Your task to perform on an android device: stop showing notifications on the lock screen Image 0: 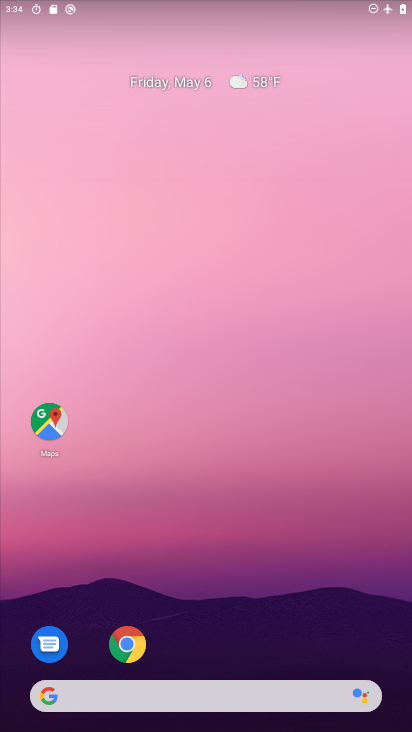
Step 0: drag from (266, 719) to (278, 67)
Your task to perform on an android device: stop showing notifications on the lock screen Image 1: 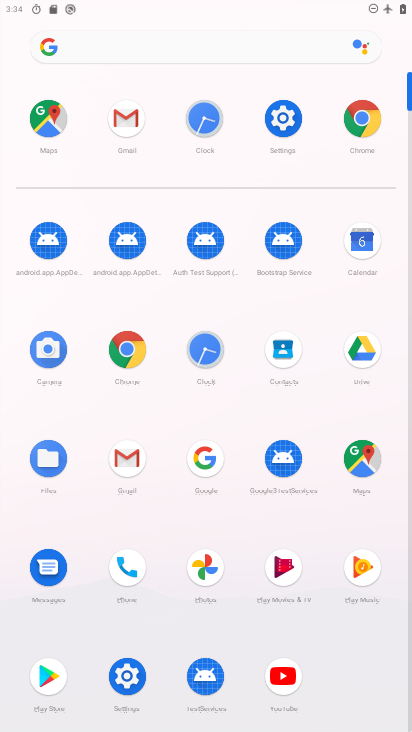
Step 1: click (289, 113)
Your task to perform on an android device: stop showing notifications on the lock screen Image 2: 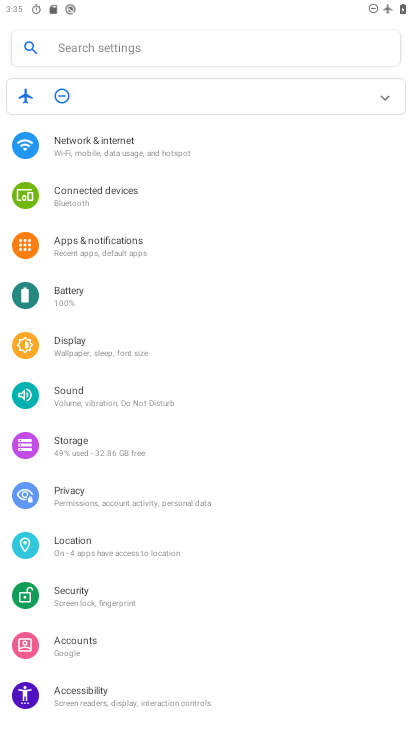
Step 2: click (97, 241)
Your task to perform on an android device: stop showing notifications on the lock screen Image 3: 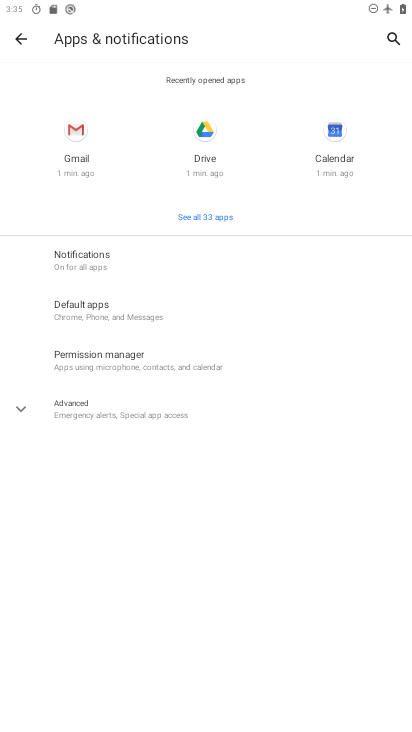
Step 3: click (84, 257)
Your task to perform on an android device: stop showing notifications on the lock screen Image 4: 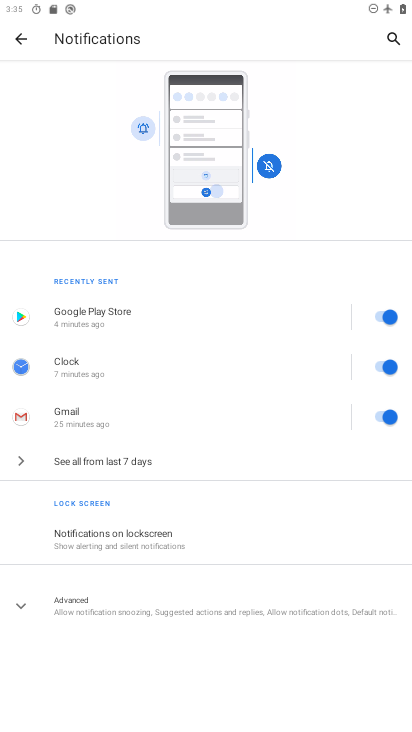
Step 4: click (148, 536)
Your task to perform on an android device: stop showing notifications on the lock screen Image 5: 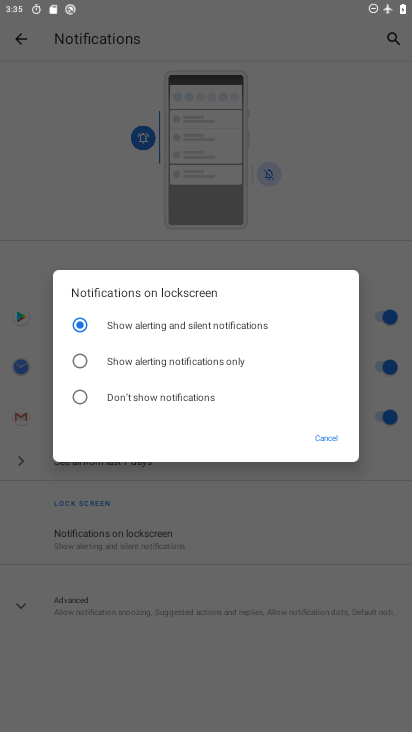
Step 5: click (76, 390)
Your task to perform on an android device: stop showing notifications on the lock screen Image 6: 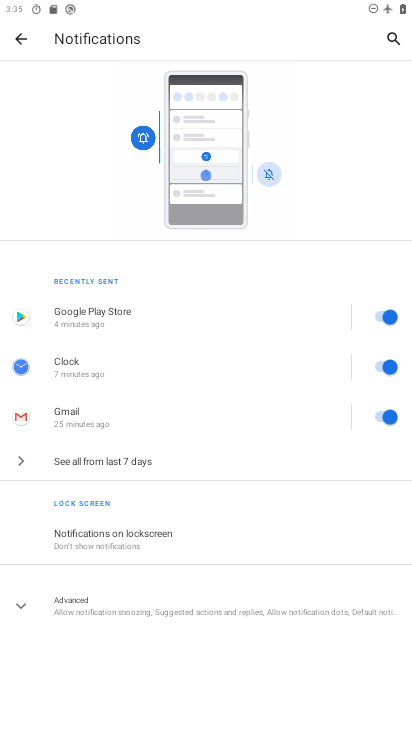
Step 6: task complete